Your task to perform on an android device: turn off airplane mode Image 0: 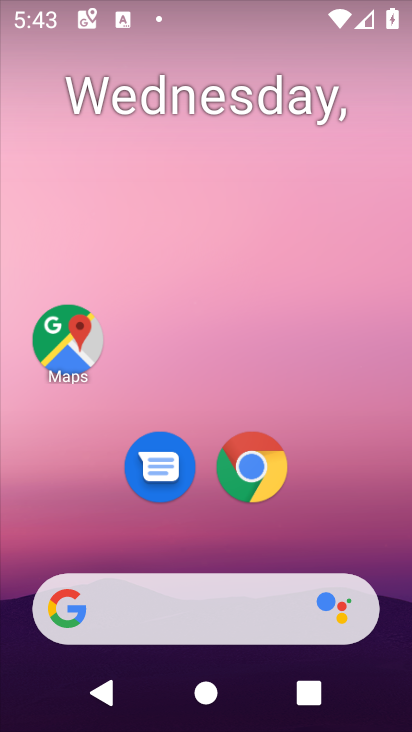
Step 0: drag from (344, 497) to (261, 56)
Your task to perform on an android device: turn off airplane mode Image 1: 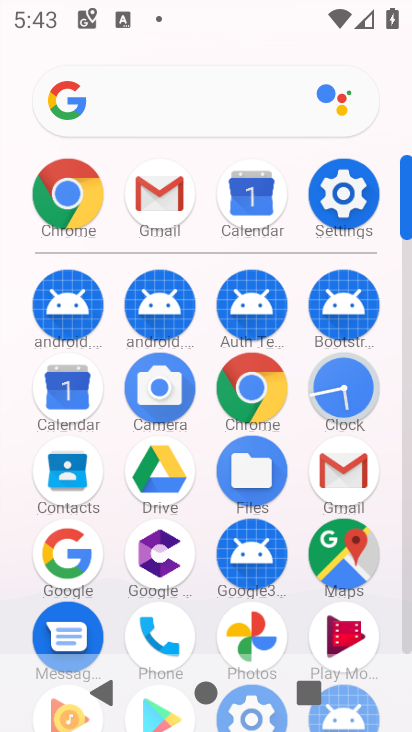
Step 1: click (355, 210)
Your task to perform on an android device: turn off airplane mode Image 2: 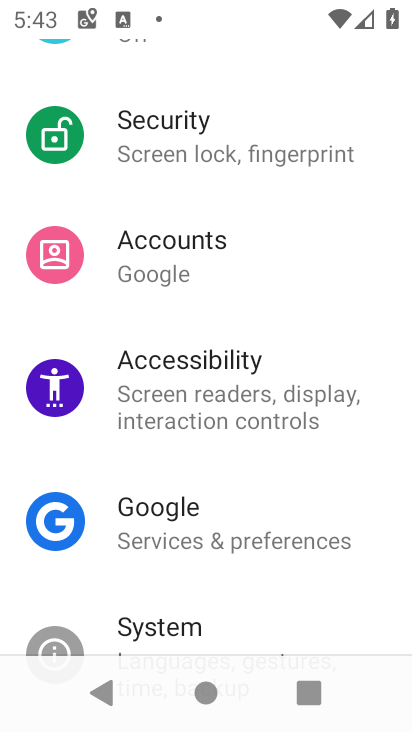
Step 2: drag from (269, 237) to (273, 695)
Your task to perform on an android device: turn off airplane mode Image 3: 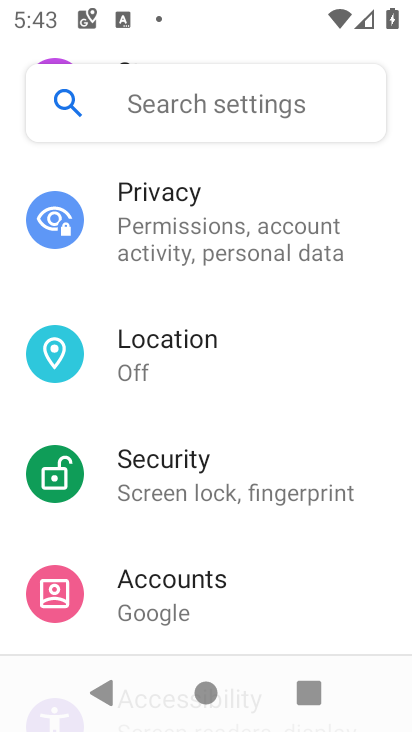
Step 3: drag from (224, 232) to (206, 628)
Your task to perform on an android device: turn off airplane mode Image 4: 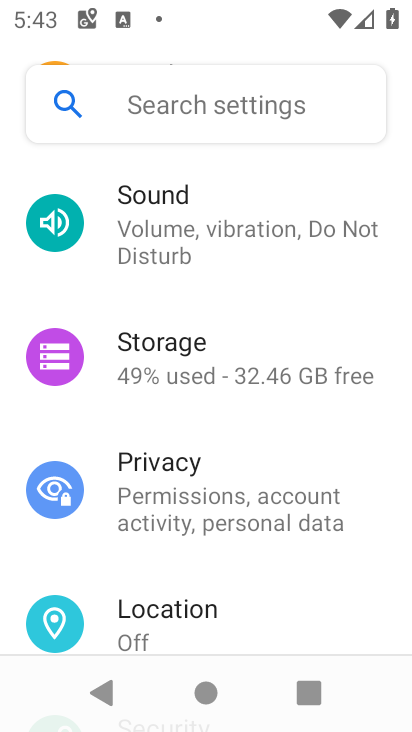
Step 4: drag from (260, 258) to (208, 694)
Your task to perform on an android device: turn off airplane mode Image 5: 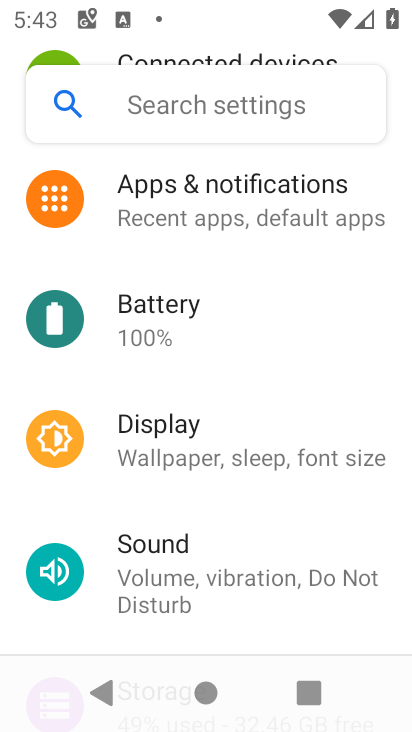
Step 5: drag from (256, 227) to (205, 691)
Your task to perform on an android device: turn off airplane mode Image 6: 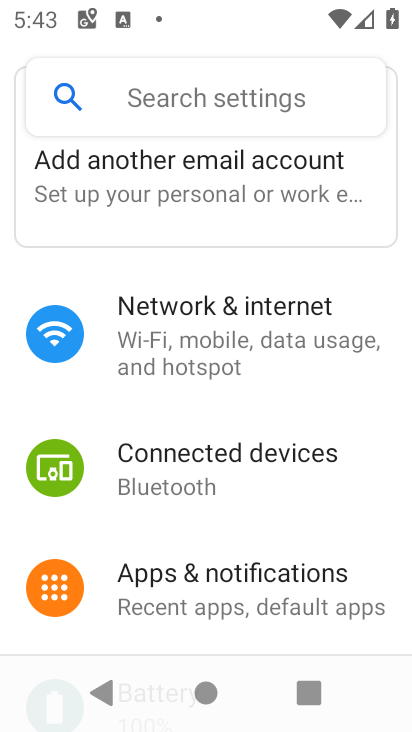
Step 6: click (270, 332)
Your task to perform on an android device: turn off airplane mode Image 7: 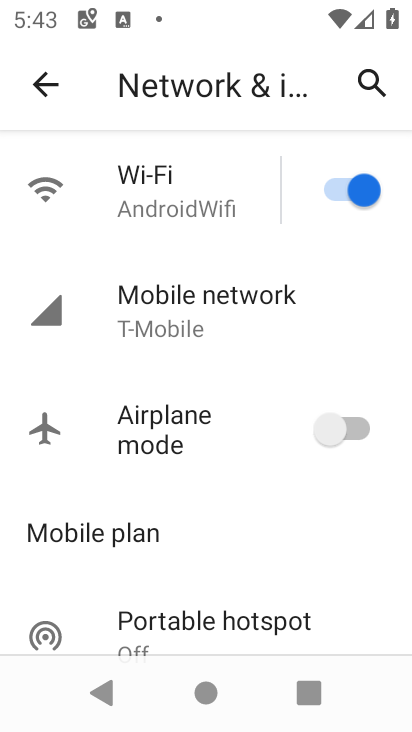
Step 7: task complete